Your task to perform on an android device: turn vacation reply on in the gmail app Image 0: 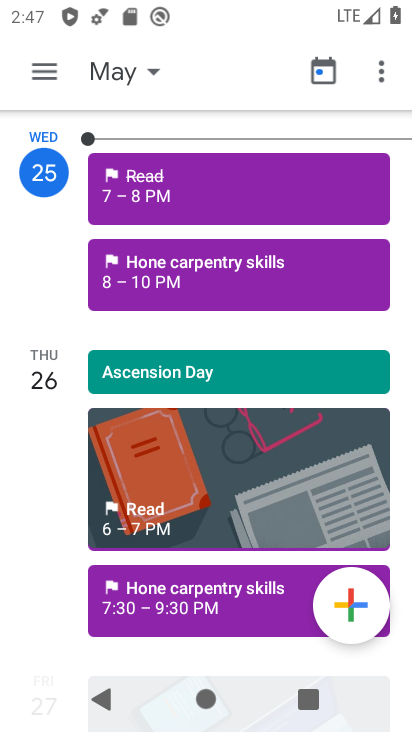
Step 0: press back button
Your task to perform on an android device: turn vacation reply on in the gmail app Image 1: 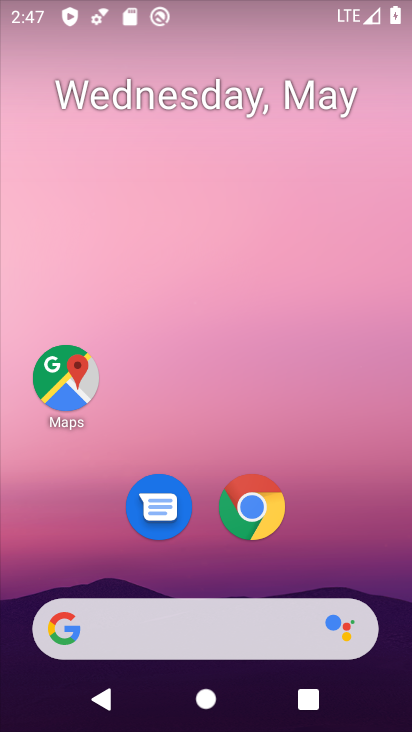
Step 1: drag from (322, 469) to (282, 28)
Your task to perform on an android device: turn vacation reply on in the gmail app Image 2: 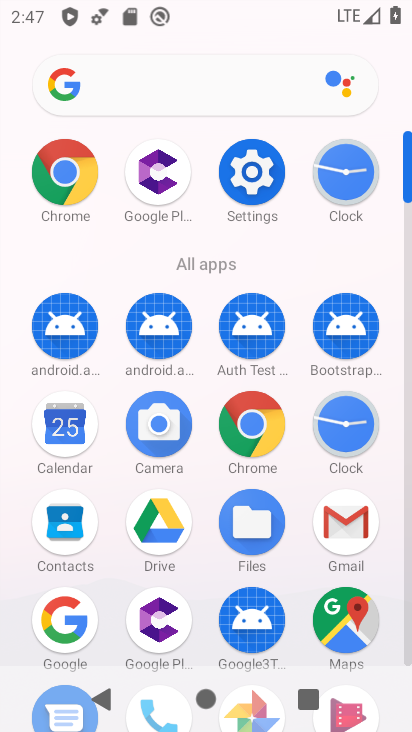
Step 2: drag from (21, 588) to (29, 364)
Your task to perform on an android device: turn vacation reply on in the gmail app Image 3: 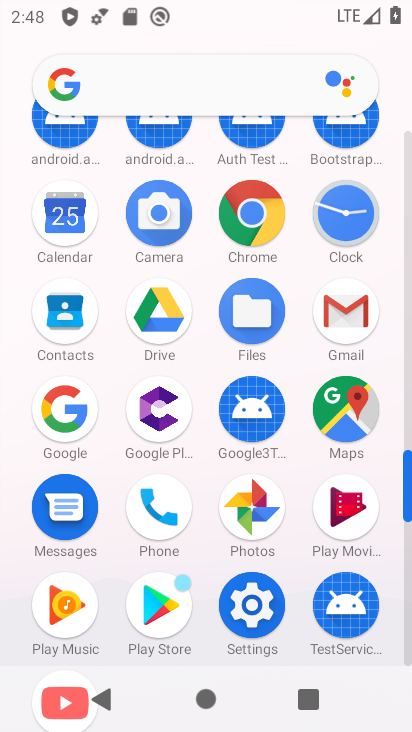
Step 3: click (347, 298)
Your task to perform on an android device: turn vacation reply on in the gmail app Image 4: 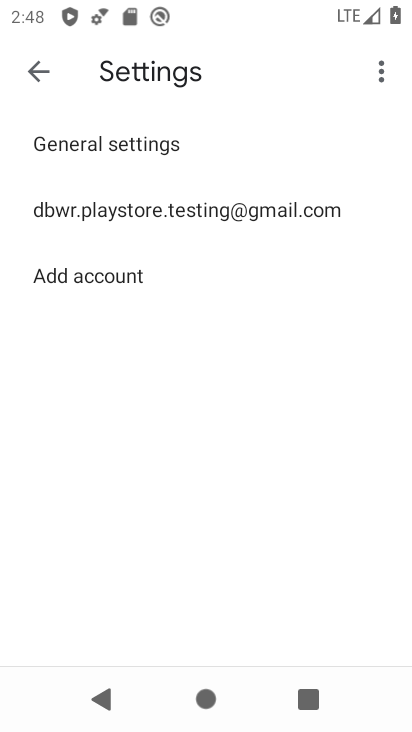
Step 4: click (226, 204)
Your task to perform on an android device: turn vacation reply on in the gmail app Image 5: 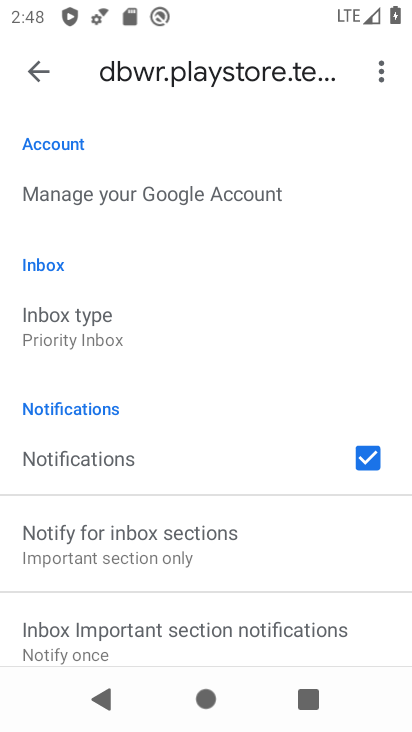
Step 5: click (35, 66)
Your task to perform on an android device: turn vacation reply on in the gmail app Image 6: 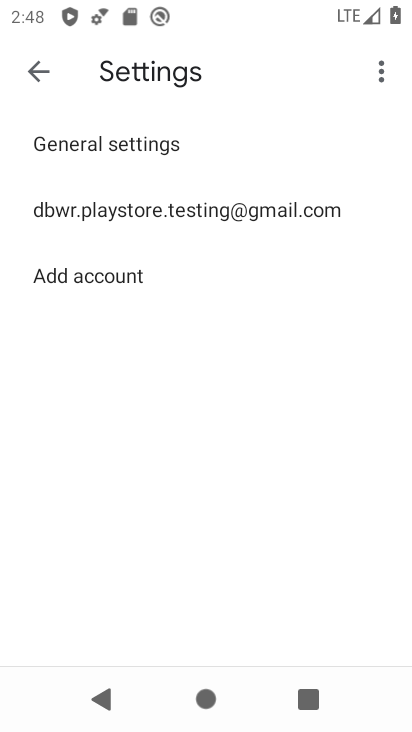
Step 6: click (48, 73)
Your task to perform on an android device: turn vacation reply on in the gmail app Image 7: 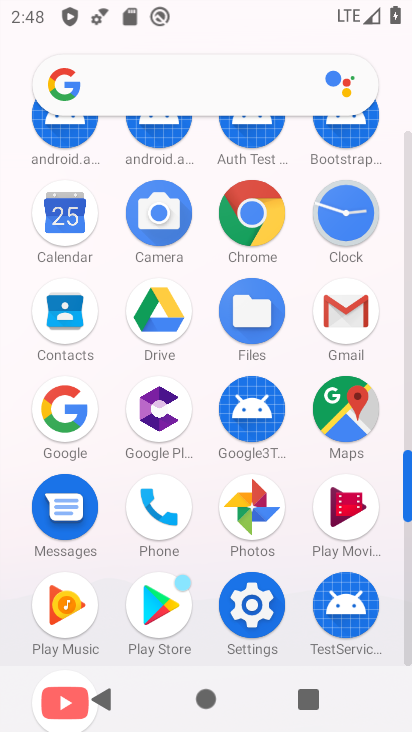
Step 7: click (343, 306)
Your task to perform on an android device: turn vacation reply on in the gmail app Image 8: 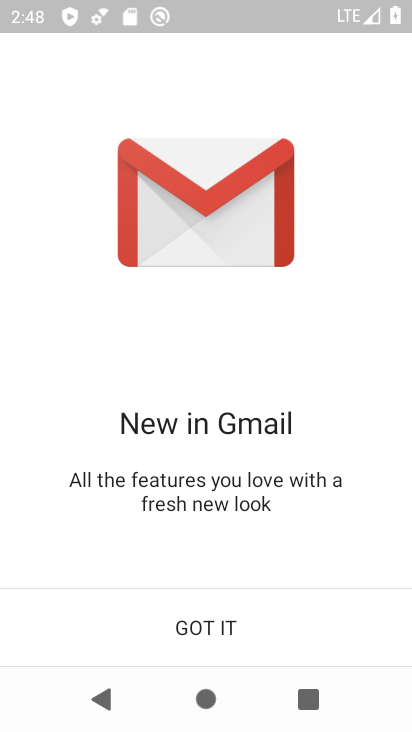
Step 8: click (226, 628)
Your task to perform on an android device: turn vacation reply on in the gmail app Image 9: 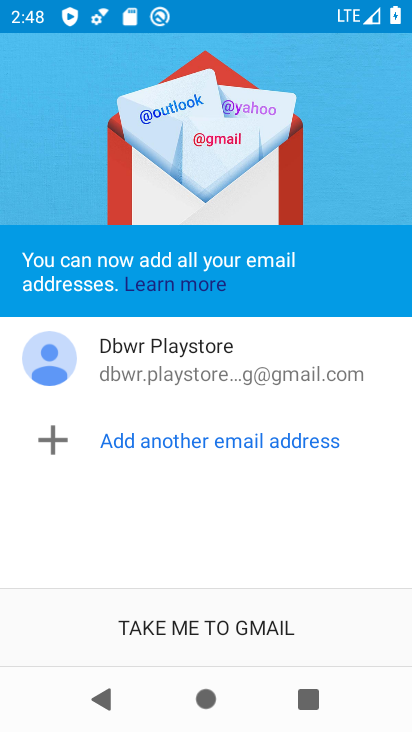
Step 9: click (226, 627)
Your task to perform on an android device: turn vacation reply on in the gmail app Image 10: 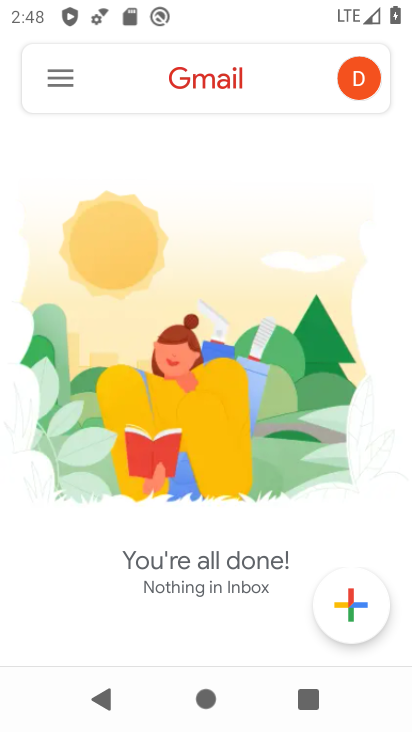
Step 10: click (50, 65)
Your task to perform on an android device: turn vacation reply on in the gmail app Image 11: 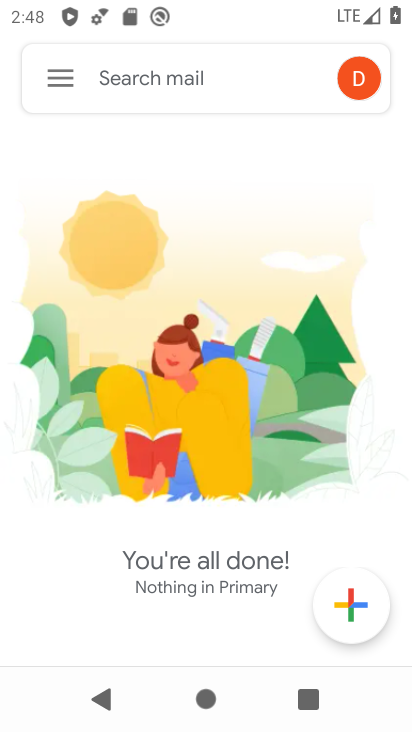
Step 11: click (57, 80)
Your task to perform on an android device: turn vacation reply on in the gmail app Image 12: 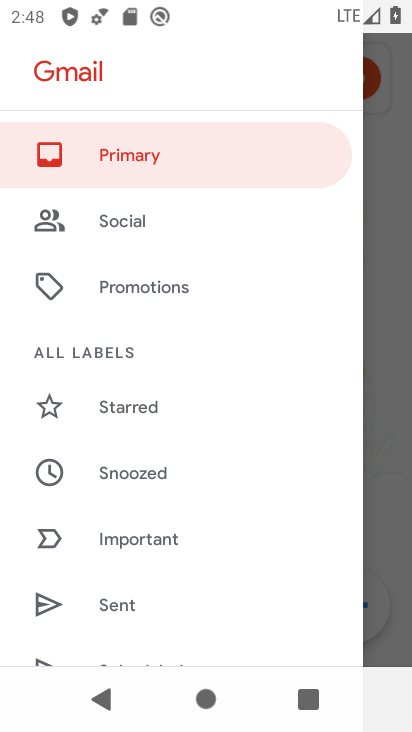
Step 12: drag from (223, 630) to (245, 199)
Your task to perform on an android device: turn vacation reply on in the gmail app Image 13: 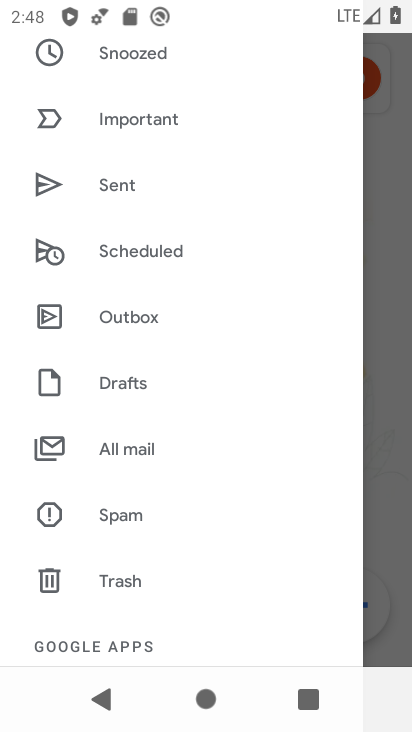
Step 13: drag from (186, 646) to (219, 151)
Your task to perform on an android device: turn vacation reply on in the gmail app Image 14: 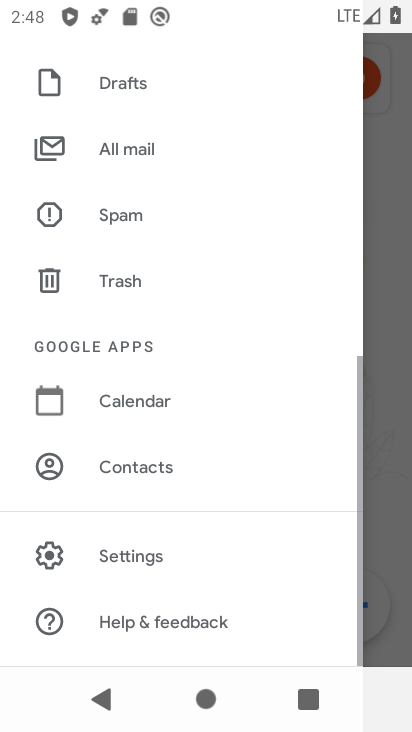
Step 14: drag from (225, 585) to (236, 267)
Your task to perform on an android device: turn vacation reply on in the gmail app Image 15: 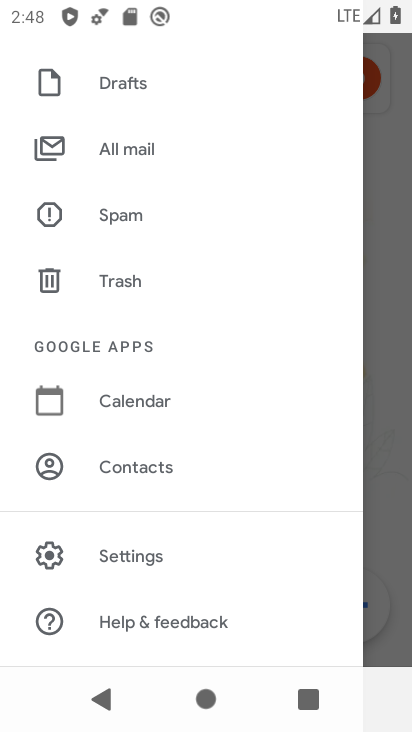
Step 15: click (144, 543)
Your task to perform on an android device: turn vacation reply on in the gmail app Image 16: 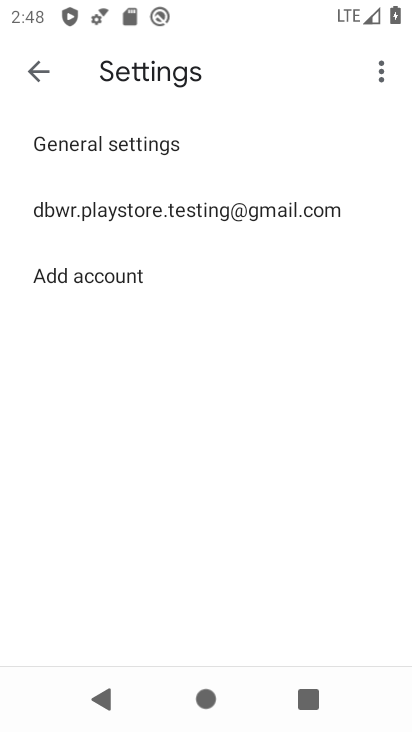
Step 16: drag from (212, 538) to (228, 293)
Your task to perform on an android device: turn vacation reply on in the gmail app Image 17: 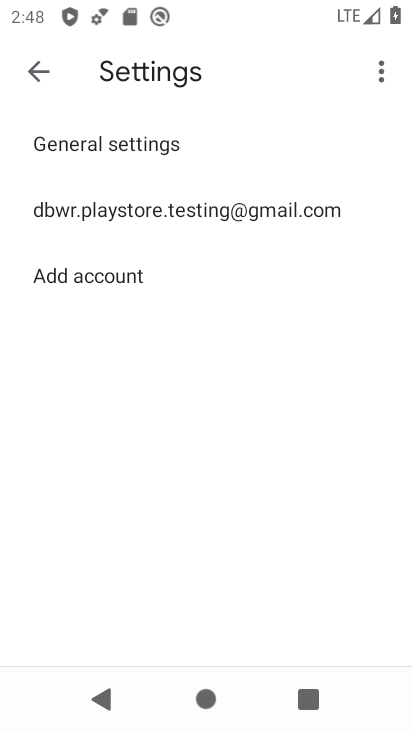
Step 17: click (194, 206)
Your task to perform on an android device: turn vacation reply on in the gmail app Image 18: 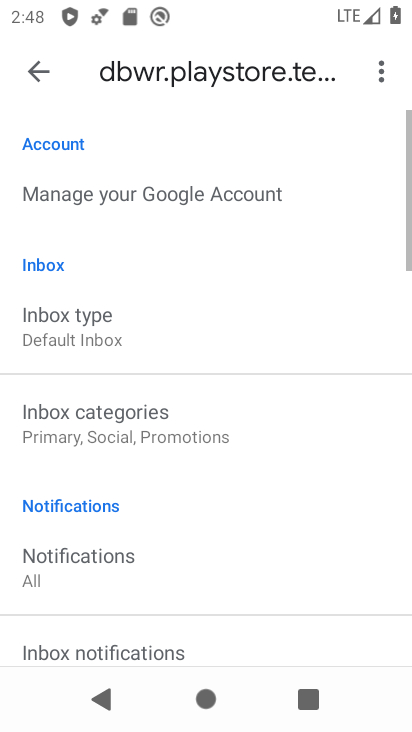
Step 18: drag from (256, 537) to (279, 172)
Your task to perform on an android device: turn vacation reply on in the gmail app Image 19: 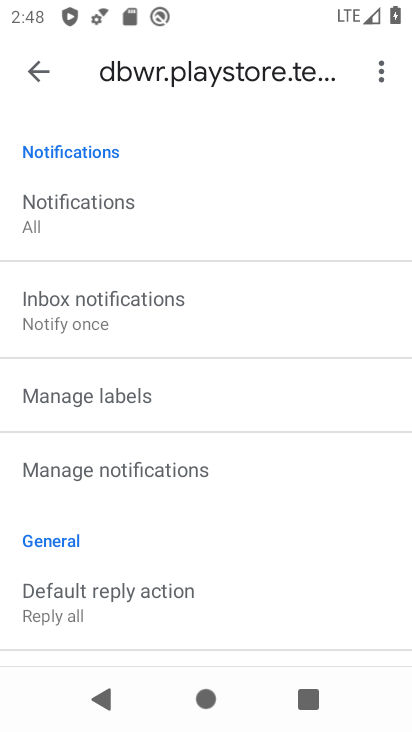
Step 19: drag from (323, 525) to (322, 198)
Your task to perform on an android device: turn vacation reply on in the gmail app Image 20: 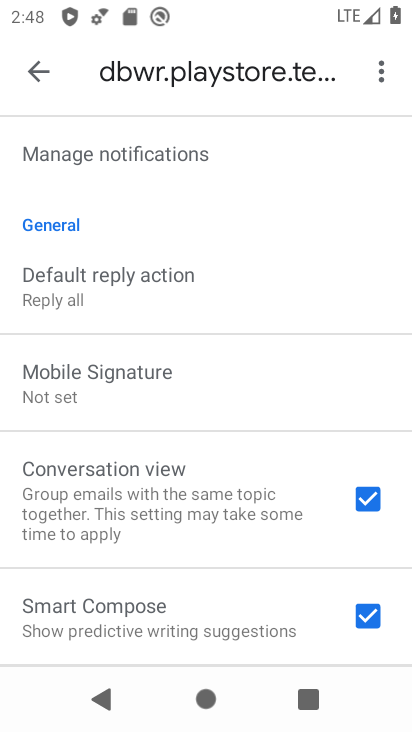
Step 20: drag from (286, 523) to (285, 211)
Your task to perform on an android device: turn vacation reply on in the gmail app Image 21: 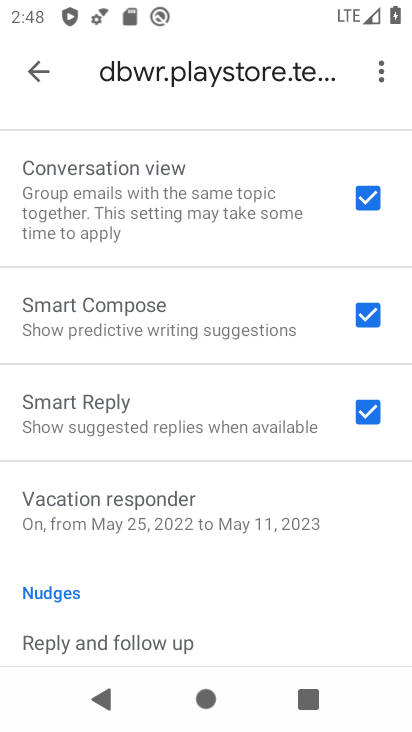
Step 21: drag from (247, 553) to (247, 199)
Your task to perform on an android device: turn vacation reply on in the gmail app Image 22: 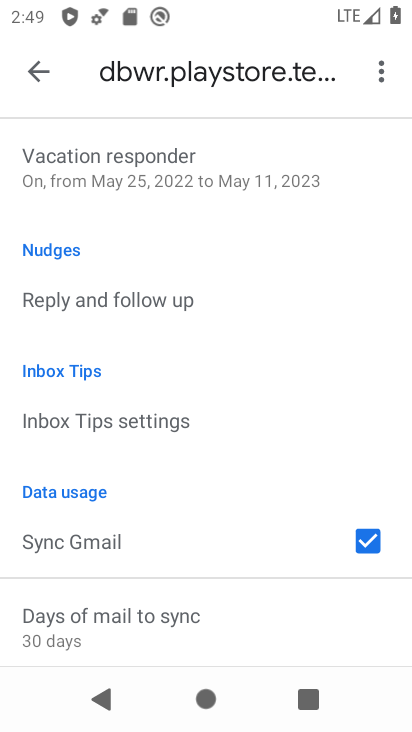
Step 22: drag from (222, 596) to (252, 285)
Your task to perform on an android device: turn vacation reply on in the gmail app Image 23: 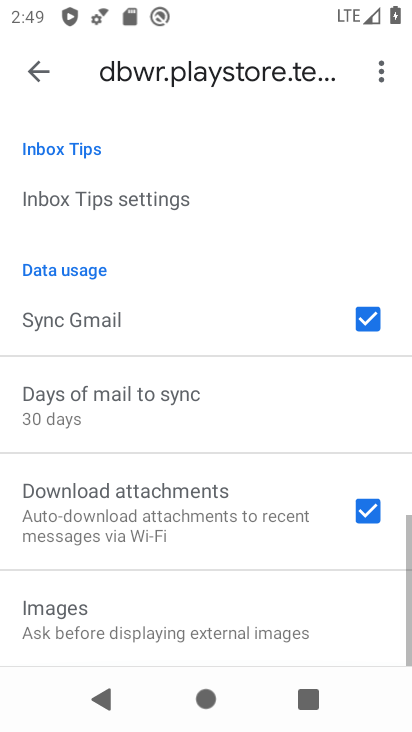
Step 23: drag from (231, 212) to (255, 474)
Your task to perform on an android device: turn vacation reply on in the gmail app Image 24: 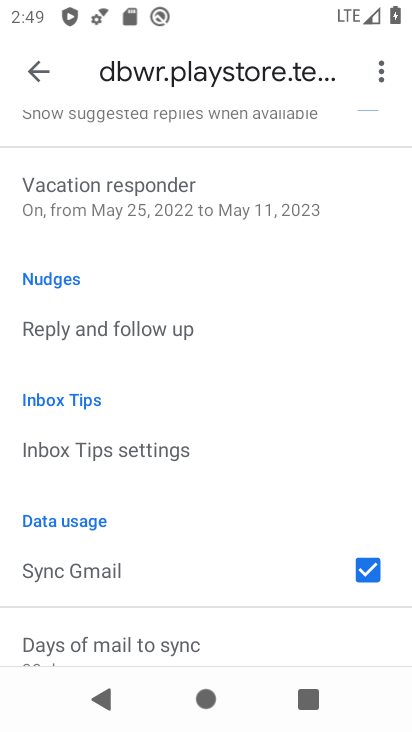
Step 24: click (202, 185)
Your task to perform on an android device: turn vacation reply on in the gmail app Image 25: 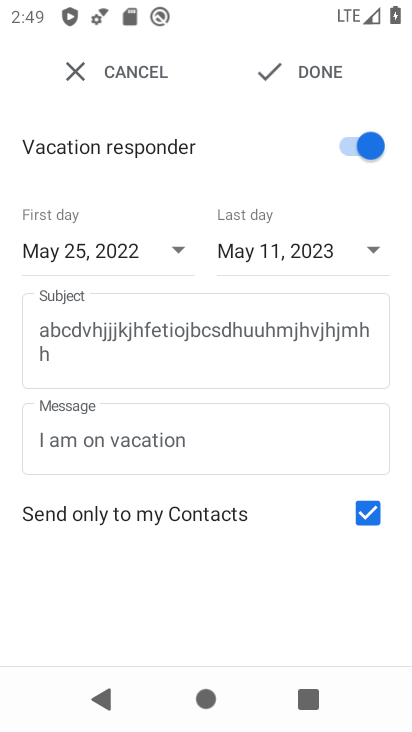
Step 25: click (277, 81)
Your task to perform on an android device: turn vacation reply on in the gmail app Image 26: 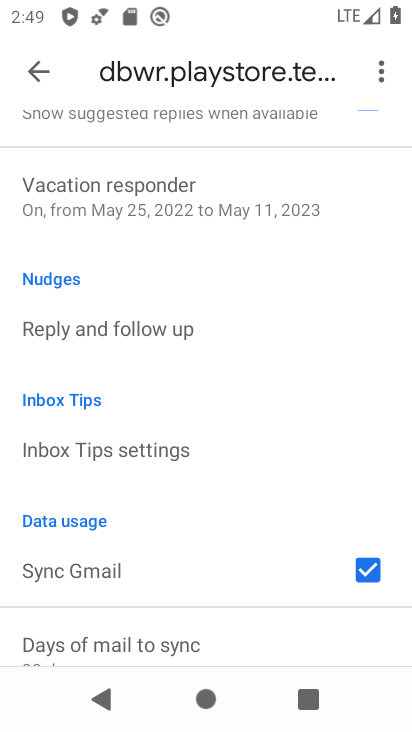
Step 26: task complete